Your task to perform on an android device: find snoozed emails in the gmail app Image 0: 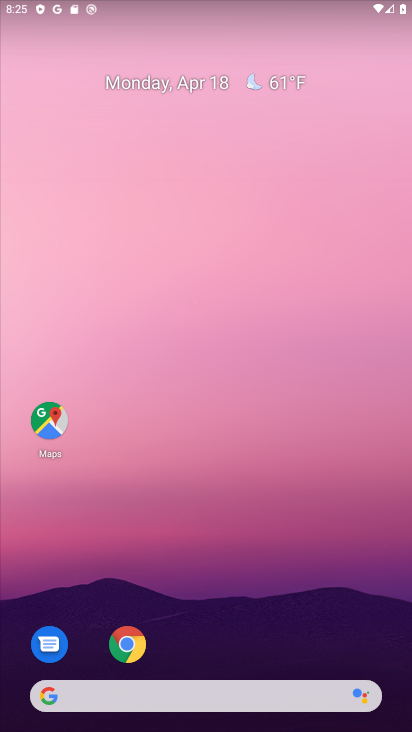
Step 0: drag from (292, 683) to (286, 142)
Your task to perform on an android device: find snoozed emails in the gmail app Image 1: 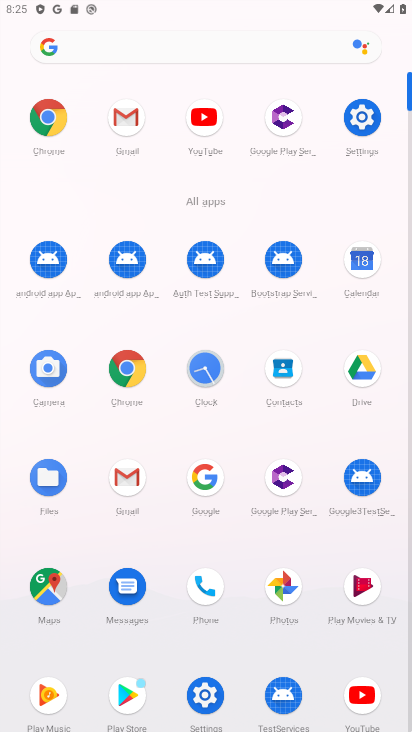
Step 1: click (127, 477)
Your task to perform on an android device: find snoozed emails in the gmail app Image 2: 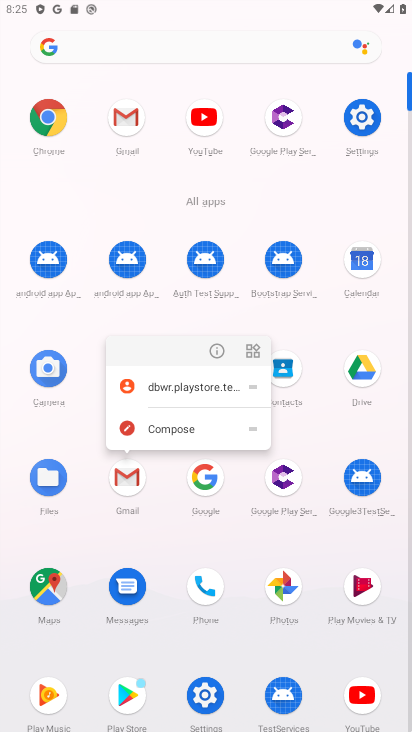
Step 2: click (128, 490)
Your task to perform on an android device: find snoozed emails in the gmail app Image 3: 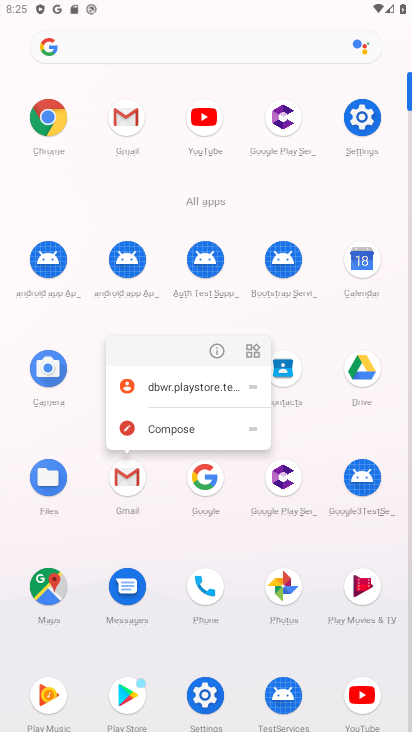
Step 3: click (141, 478)
Your task to perform on an android device: find snoozed emails in the gmail app Image 4: 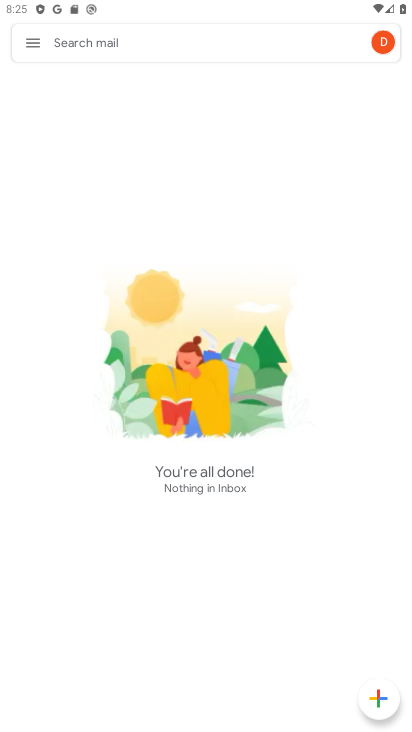
Step 4: click (31, 50)
Your task to perform on an android device: find snoozed emails in the gmail app Image 5: 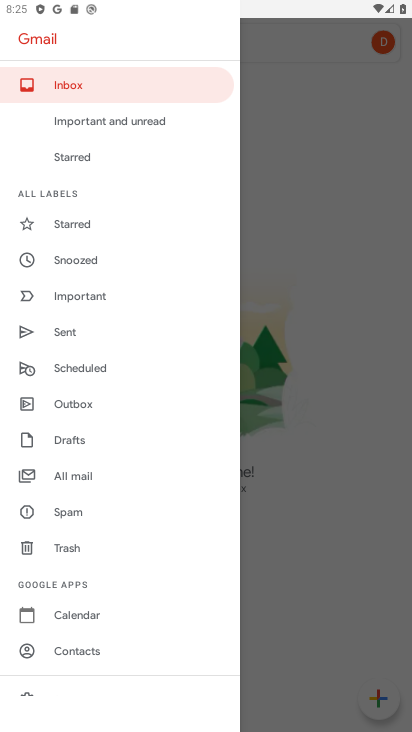
Step 5: click (98, 255)
Your task to perform on an android device: find snoozed emails in the gmail app Image 6: 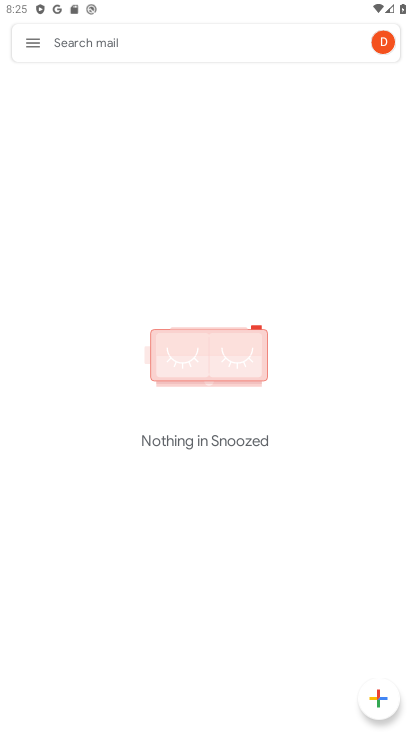
Step 6: task complete